Your task to perform on an android device: Show me the alarms in the clock app Image 0: 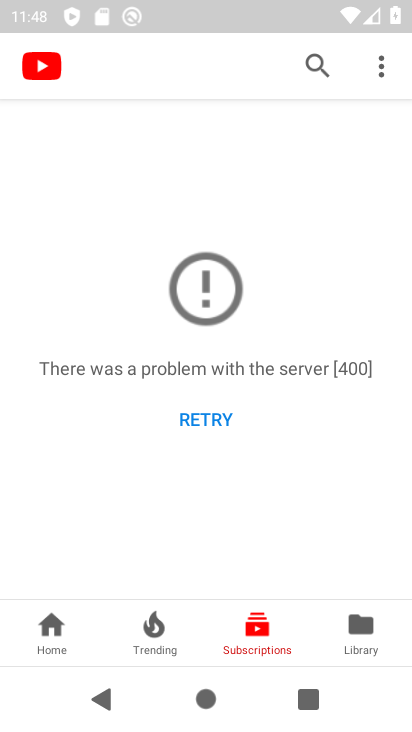
Step 0: press home button
Your task to perform on an android device: Show me the alarms in the clock app Image 1: 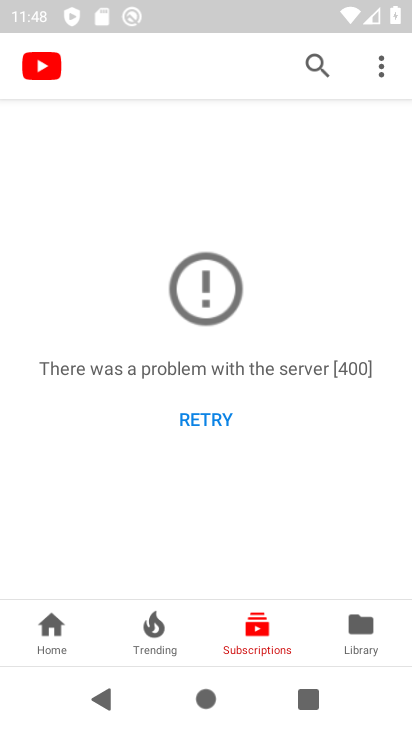
Step 1: press home button
Your task to perform on an android device: Show me the alarms in the clock app Image 2: 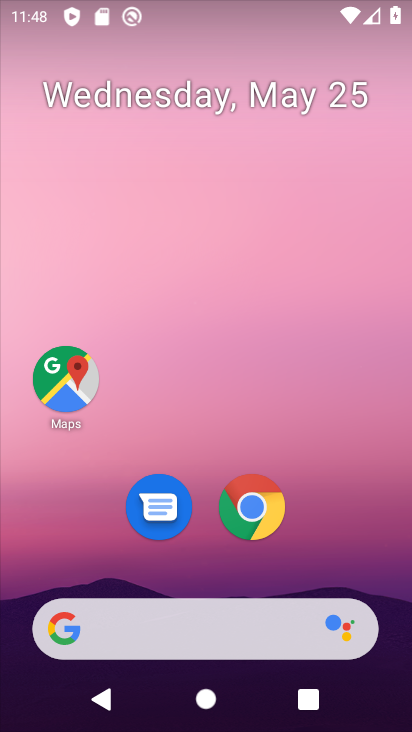
Step 2: drag from (202, 570) to (206, 248)
Your task to perform on an android device: Show me the alarms in the clock app Image 3: 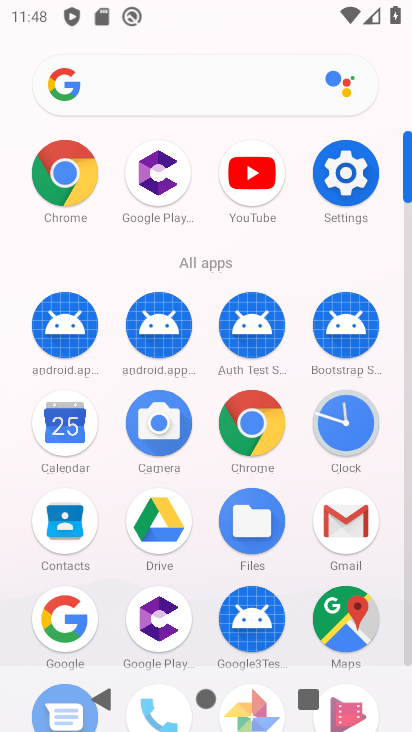
Step 3: click (358, 414)
Your task to perform on an android device: Show me the alarms in the clock app Image 4: 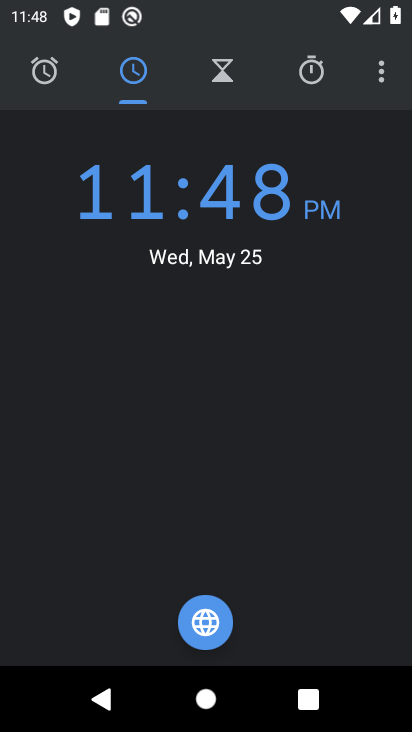
Step 4: click (384, 70)
Your task to perform on an android device: Show me the alarms in the clock app Image 5: 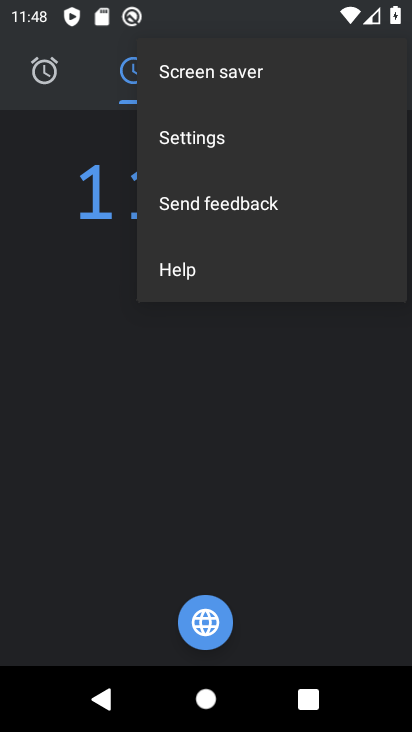
Step 5: click (52, 62)
Your task to perform on an android device: Show me the alarms in the clock app Image 6: 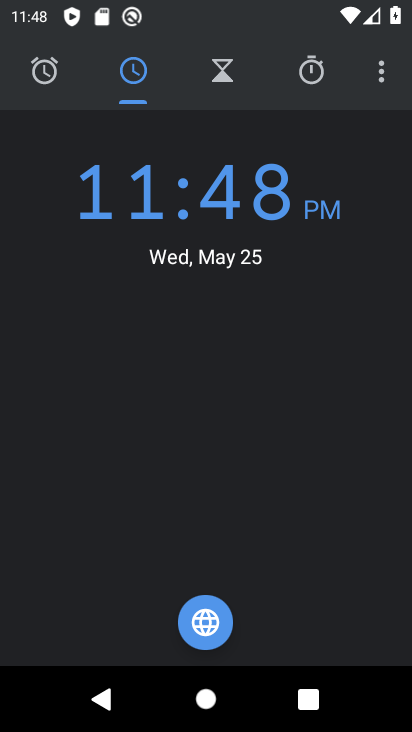
Step 6: click (52, 62)
Your task to perform on an android device: Show me the alarms in the clock app Image 7: 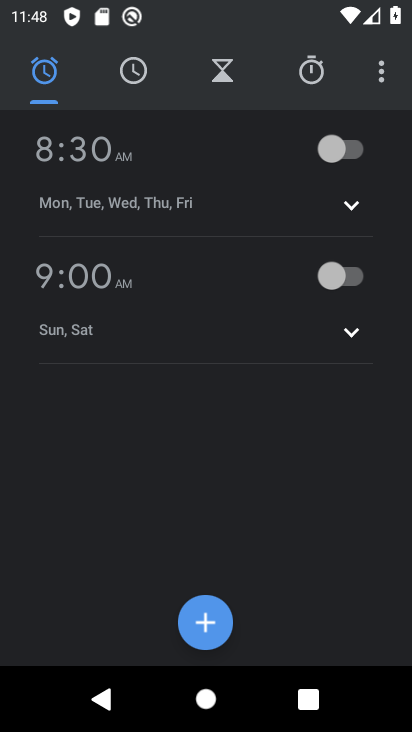
Step 7: task complete